Your task to perform on an android device: Open Reddit.com Image 0: 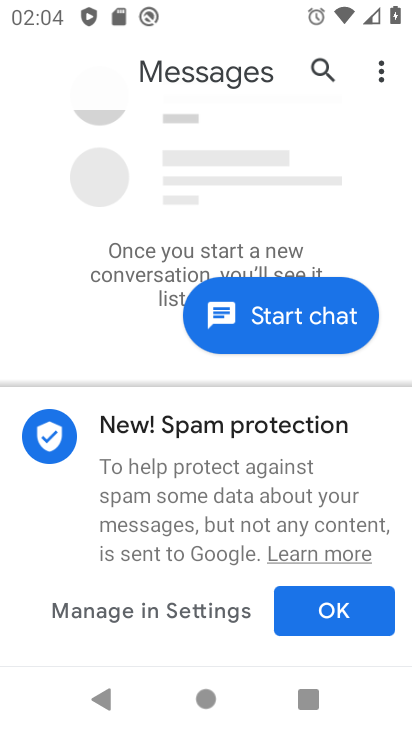
Step 0: press home button
Your task to perform on an android device: Open Reddit.com Image 1: 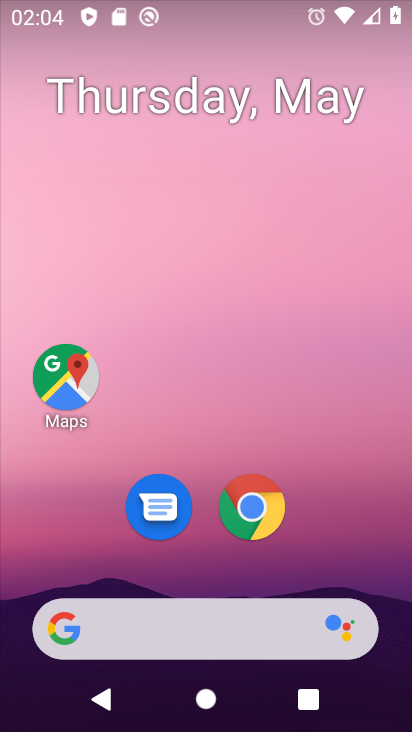
Step 1: click (193, 637)
Your task to perform on an android device: Open Reddit.com Image 2: 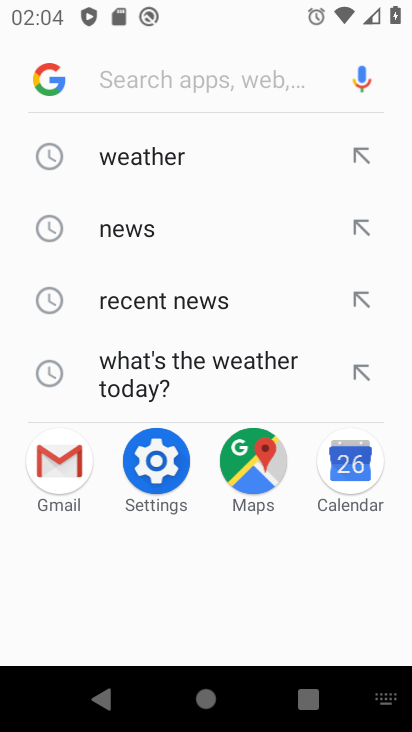
Step 2: type "reddit.com"
Your task to perform on an android device: Open Reddit.com Image 3: 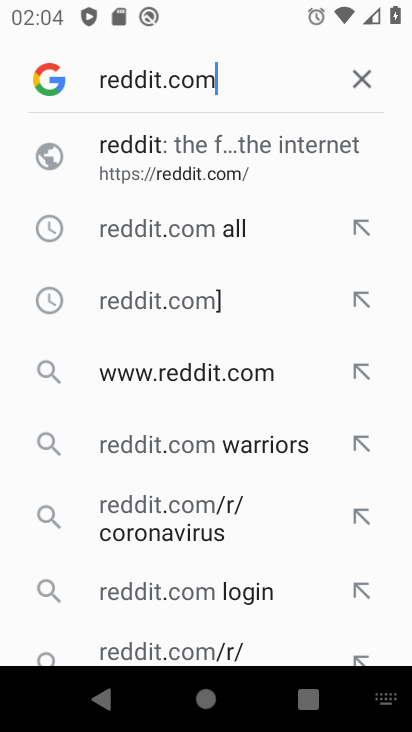
Step 3: click (199, 175)
Your task to perform on an android device: Open Reddit.com Image 4: 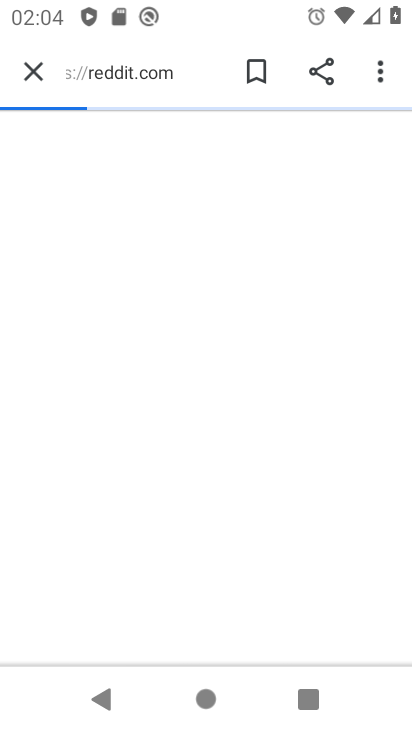
Step 4: task complete